Your task to perform on an android device: Open Reddit.com Image 0: 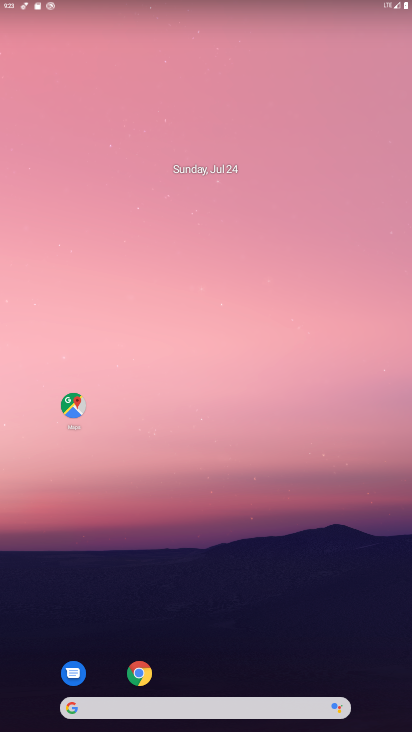
Step 0: click (140, 676)
Your task to perform on an android device: Open Reddit.com Image 1: 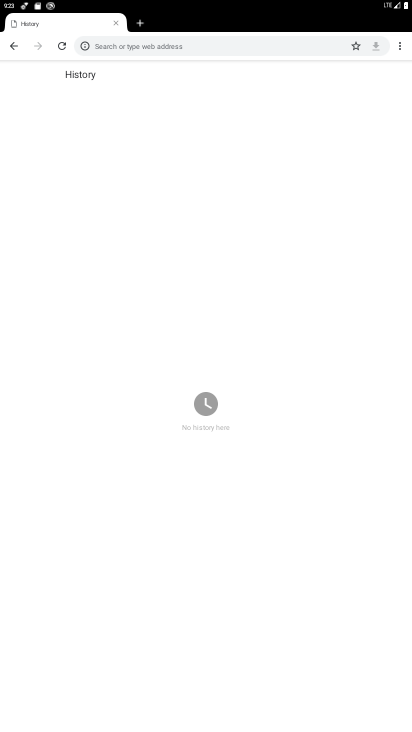
Step 1: click (149, 32)
Your task to perform on an android device: Open Reddit.com Image 2: 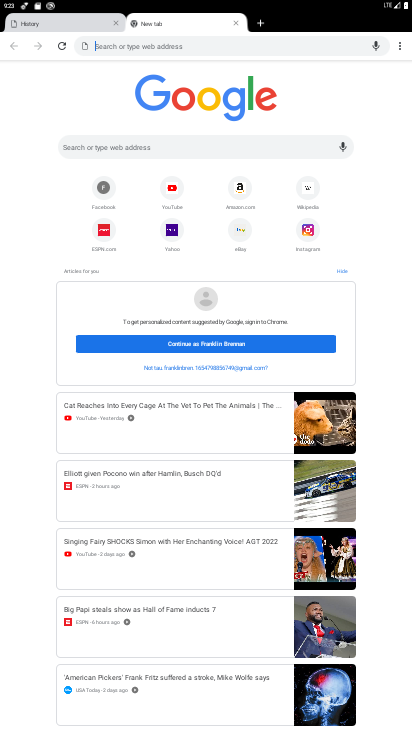
Step 2: type "reddit.com"
Your task to perform on an android device: Open Reddit.com Image 3: 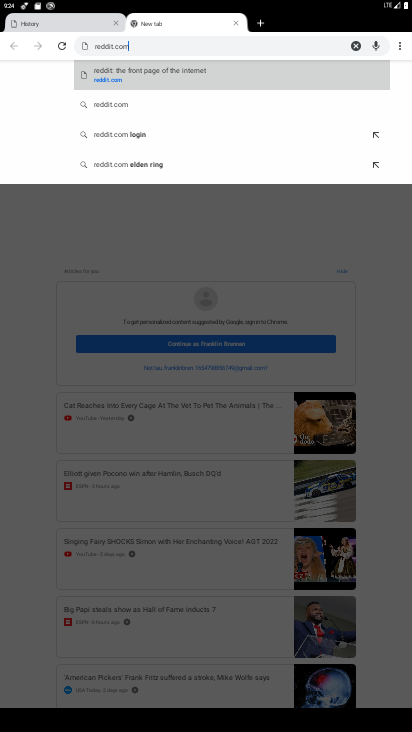
Step 3: click (228, 69)
Your task to perform on an android device: Open Reddit.com Image 4: 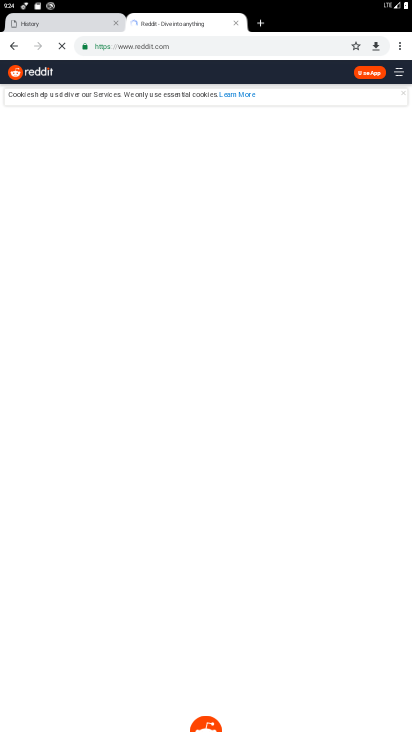
Step 4: task complete